Your task to perform on an android device: show emergency info Image 0: 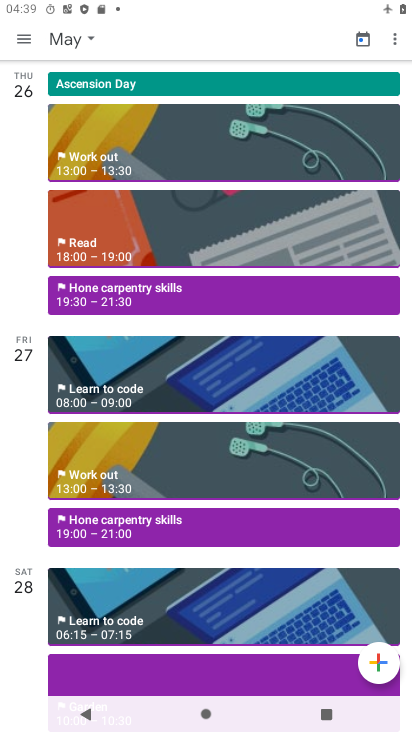
Step 0: press home button
Your task to perform on an android device: show emergency info Image 1: 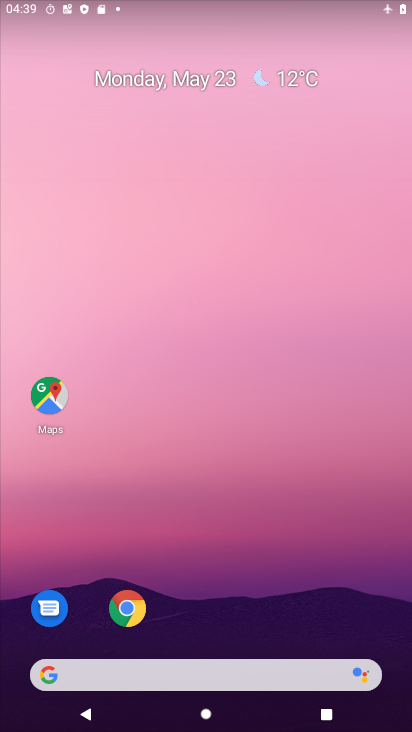
Step 1: drag from (302, 499) to (176, 51)
Your task to perform on an android device: show emergency info Image 2: 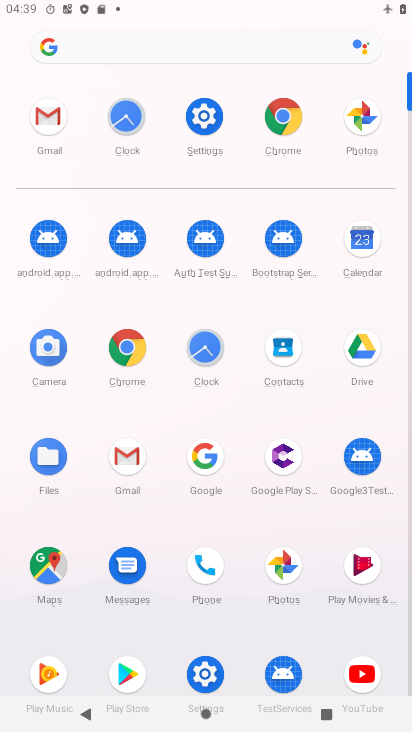
Step 2: click (207, 135)
Your task to perform on an android device: show emergency info Image 3: 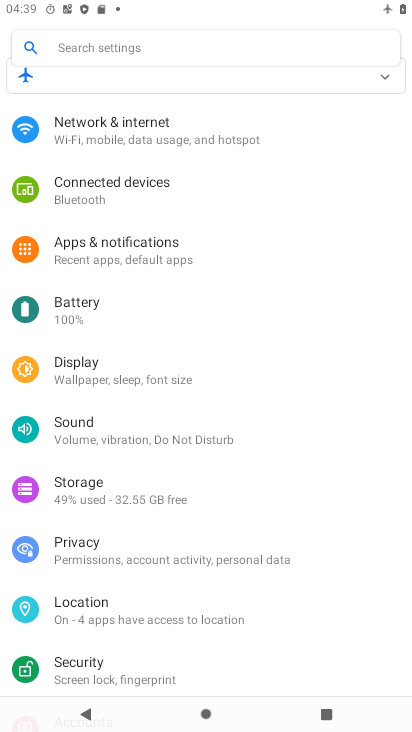
Step 3: drag from (261, 628) to (172, 16)
Your task to perform on an android device: show emergency info Image 4: 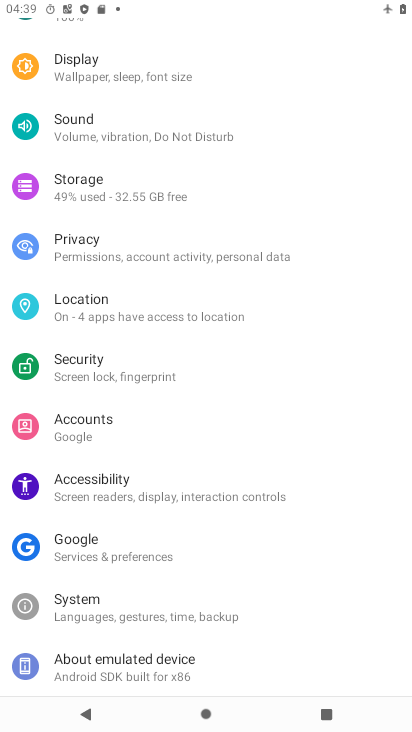
Step 4: click (185, 674)
Your task to perform on an android device: show emergency info Image 5: 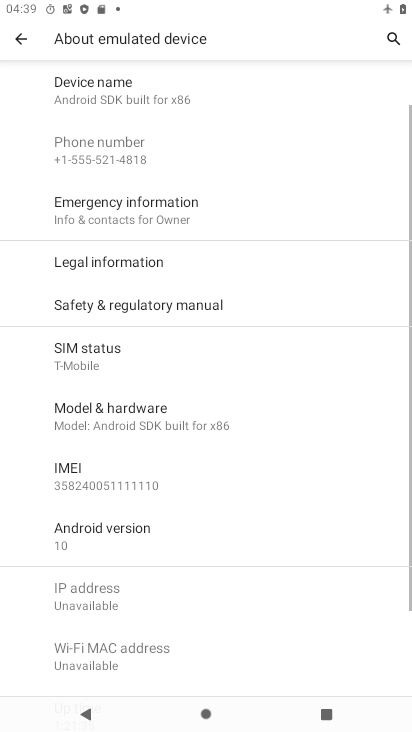
Step 5: click (210, 181)
Your task to perform on an android device: show emergency info Image 6: 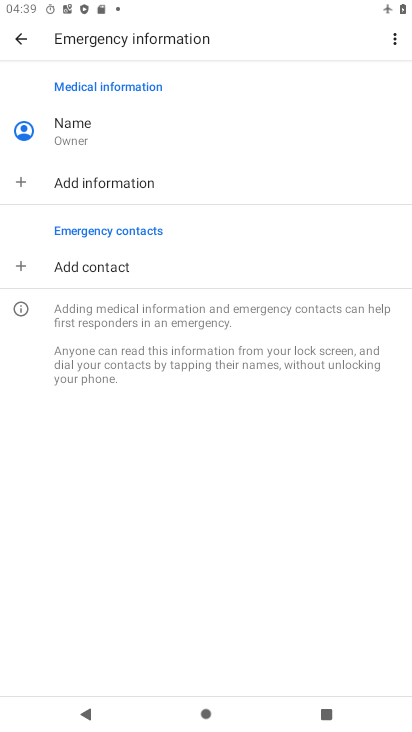
Step 6: task complete